Your task to perform on an android device: turn off location Image 0: 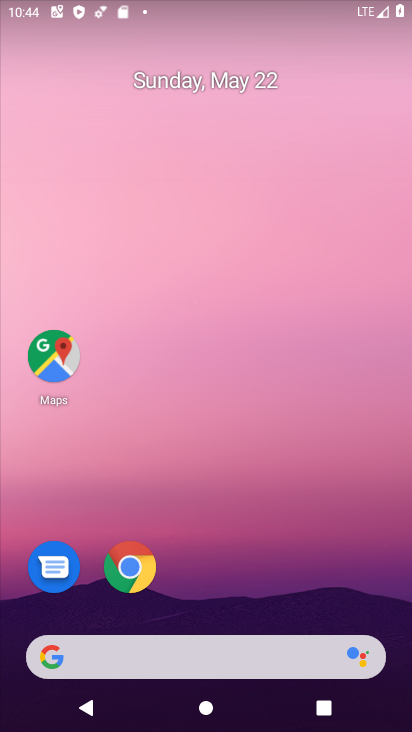
Step 0: drag from (283, 445) to (258, 9)
Your task to perform on an android device: turn off location Image 1: 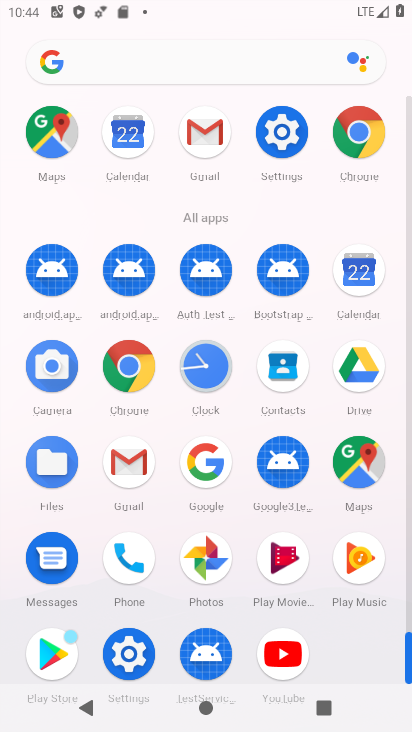
Step 1: drag from (11, 542) to (18, 187)
Your task to perform on an android device: turn off location Image 2: 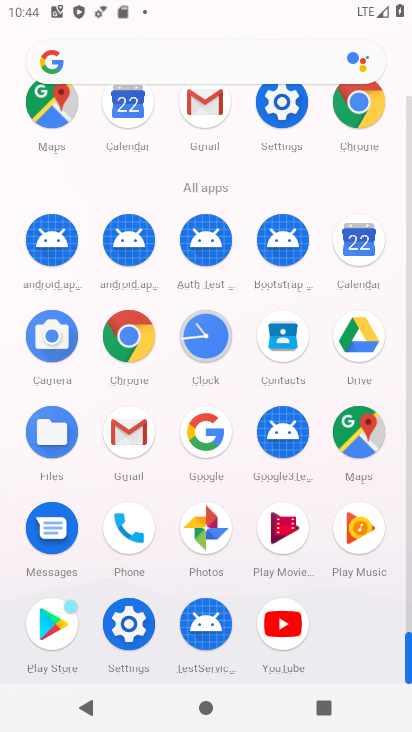
Step 2: click (128, 621)
Your task to perform on an android device: turn off location Image 3: 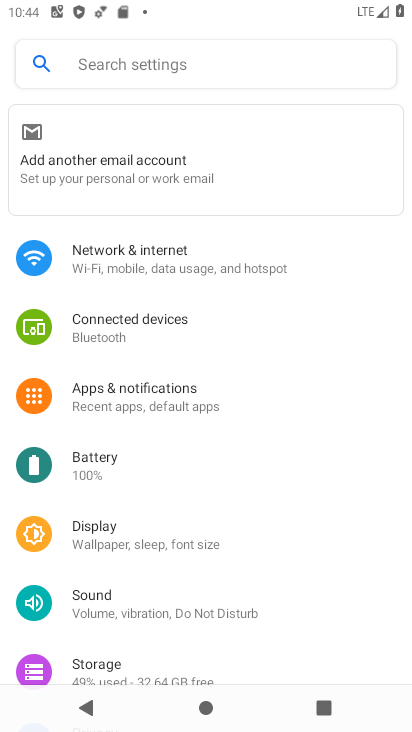
Step 3: drag from (192, 602) to (242, 249)
Your task to perform on an android device: turn off location Image 4: 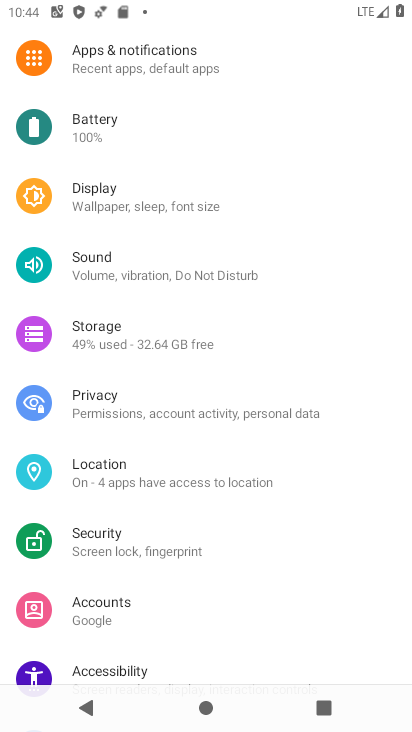
Step 4: click (132, 476)
Your task to perform on an android device: turn off location Image 5: 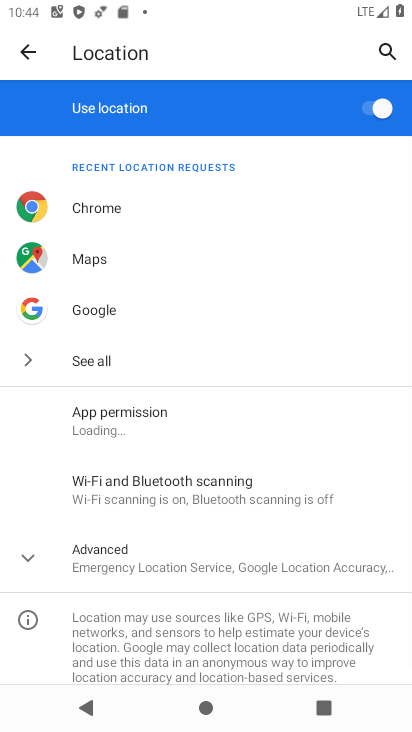
Step 5: click (376, 100)
Your task to perform on an android device: turn off location Image 6: 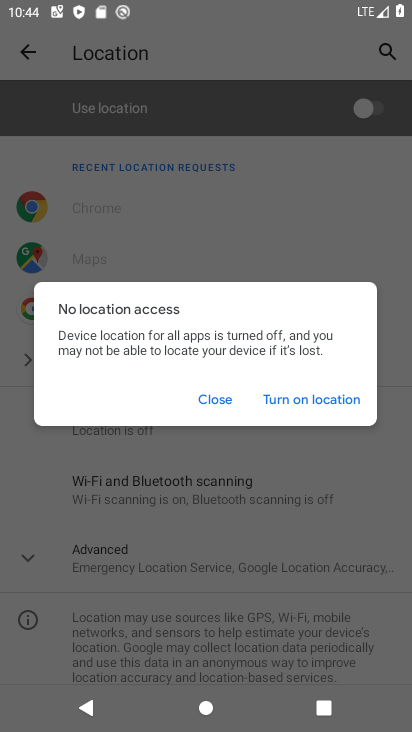
Step 6: click (207, 389)
Your task to perform on an android device: turn off location Image 7: 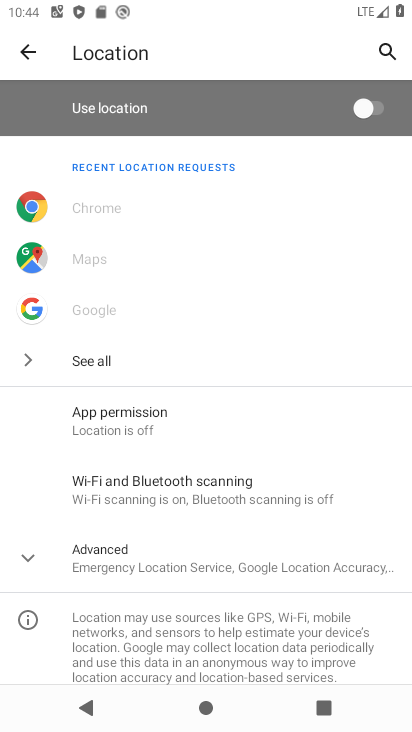
Step 7: task complete